Your task to perform on an android device: toggle sleep mode Image 0: 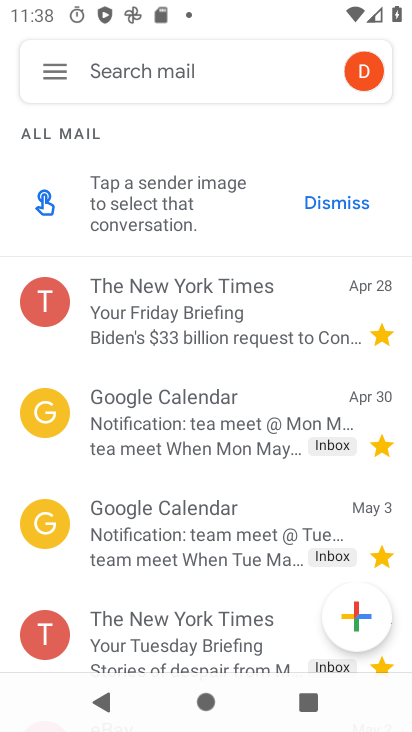
Step 0: press home button
Your task to perform on an android device: toggle sleep mode Image 1: 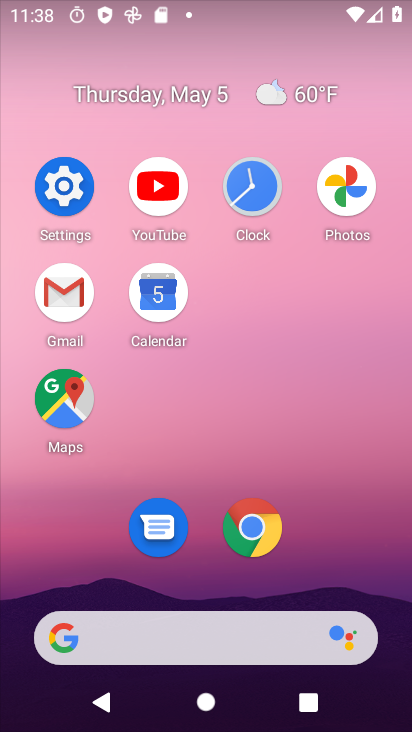
Step 1: click (66, 179)
Your task to perform on an android device: toggle sleep mode Image 2: 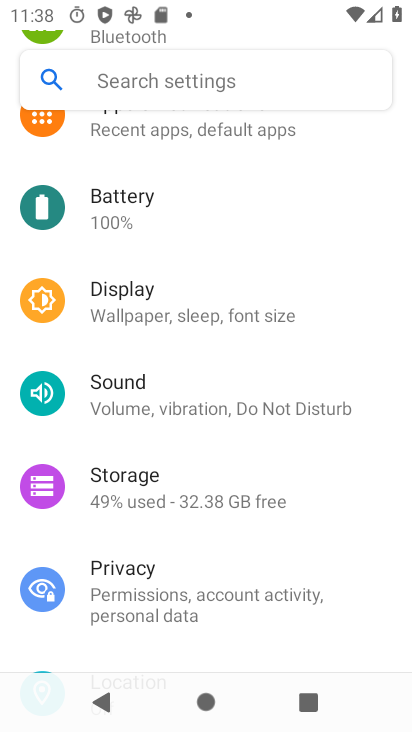
Step 2: click (260, 331)
Your task to perform on an android device: toggle sleep mode Image 3: 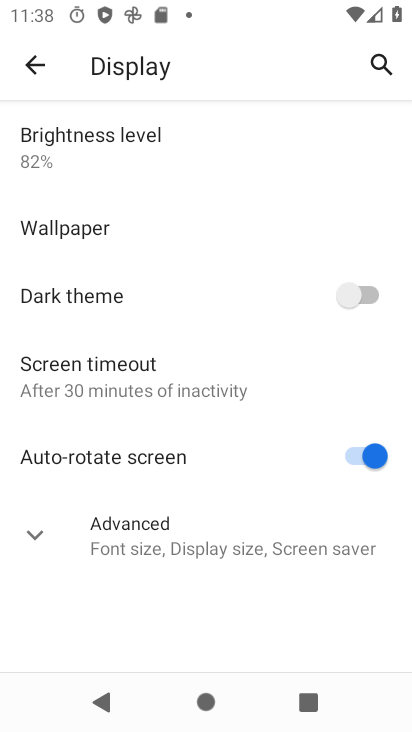
Step 3: click (234, 398)
Your task to perform on an android device: toggle sleep mode Image 4: 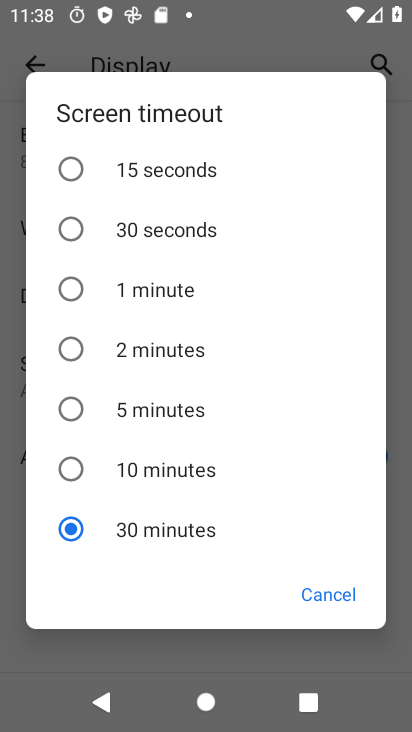
Step 4: click (215, 245)
Your task to perform on an android device: toggle sleep mode Image 5: 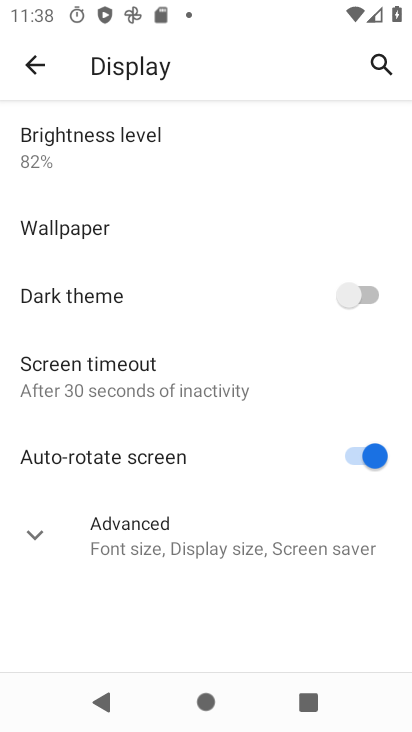
Step 5: task complete